Your task to perform on an android device: See recent photos Image 0: 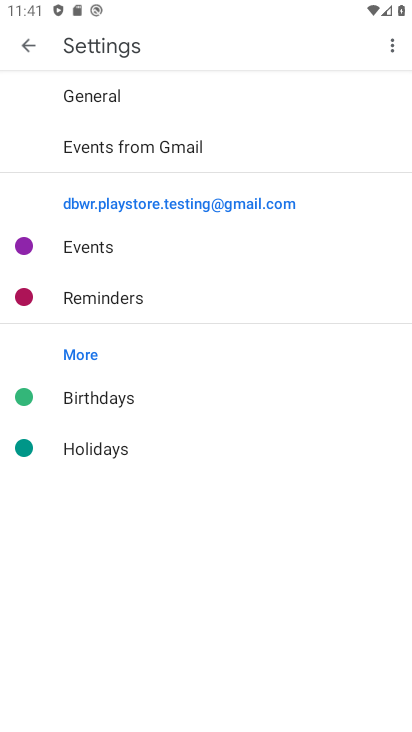
Step 0: press home button
Your task to perform on an android device: See recent photos Image 1: 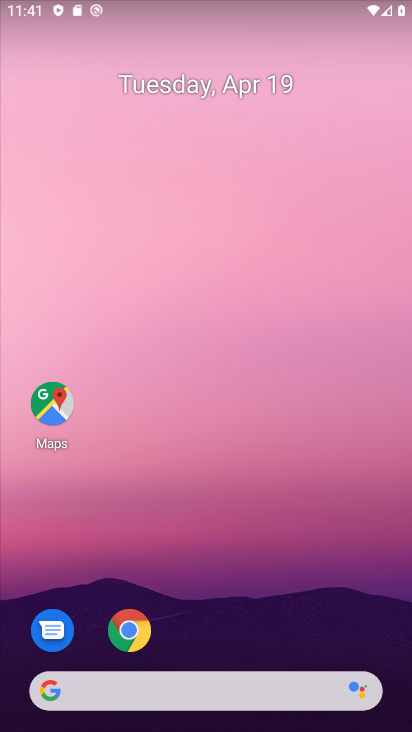
Step 1: drag from (363, 618) to (287, 250)
Your task to perform on an android device: See recent photos Image 2: 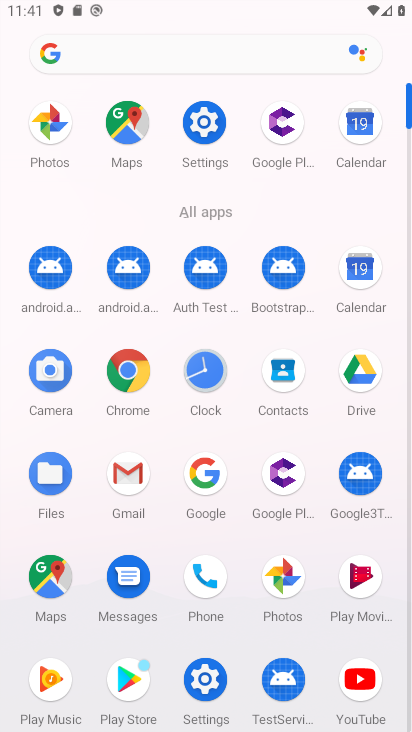
Step 2: click (279, 573)
Your task to perform on an android device: See recent photos Image 3: 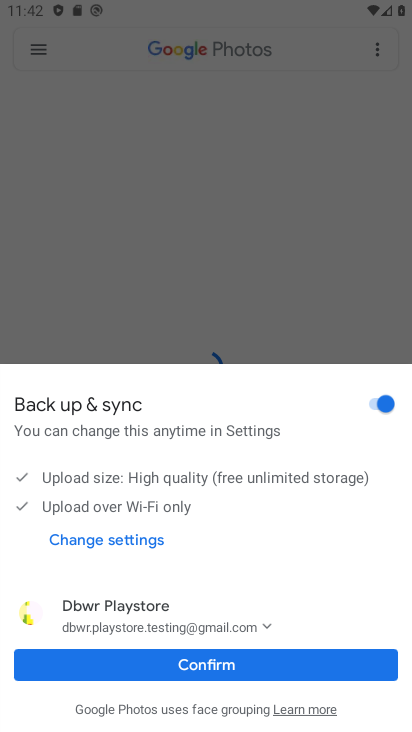
Step 3: click (203, 663)
Your task to perform on an android device: See recent photos Image 4: 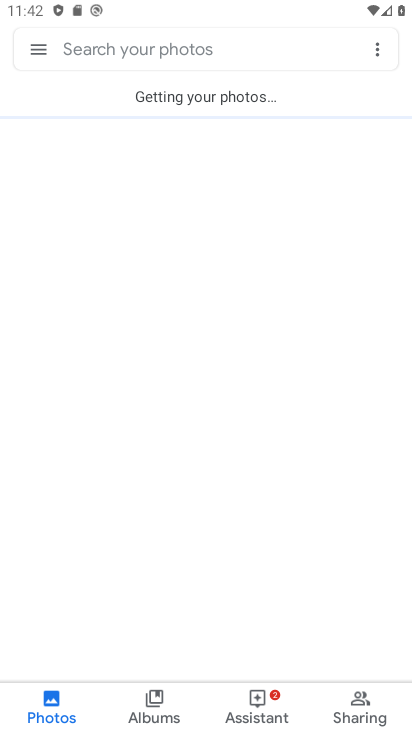
Step 4: click (147, 723)
Your task to perform on an android device: See recent photos Image 5: 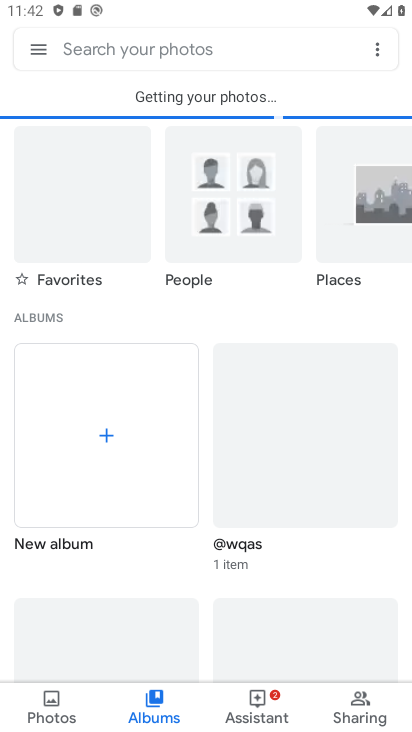
Step 5: task complete